Your task to perform on an android device: see creations saved in the google photos Image 0: 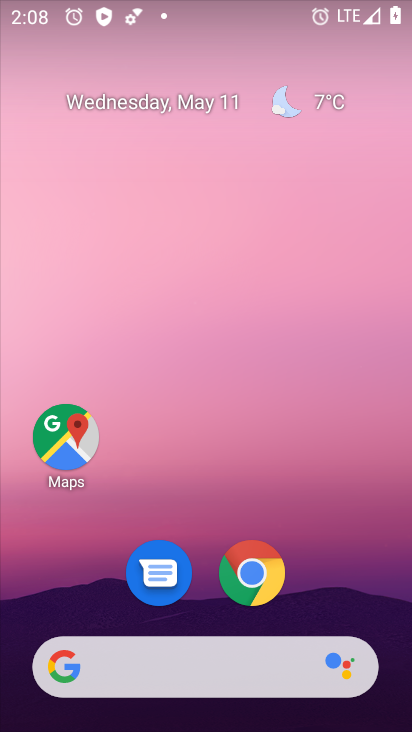
Step 0: drag from (131, 599) to (224, 136)
Your task to perform on an android device: see creations saved in the google photos Image 1: 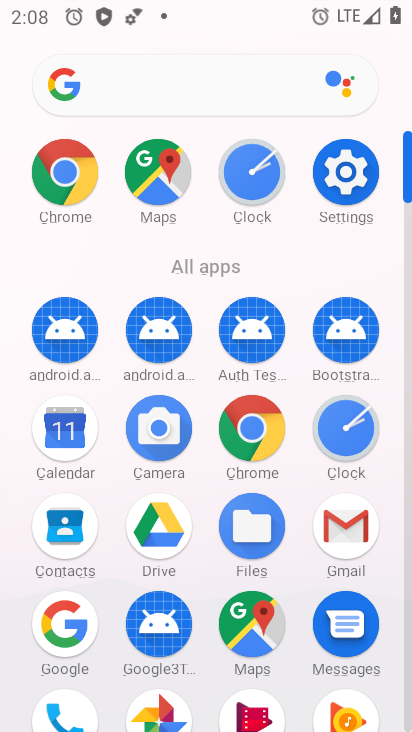
Step 1: click (161, 703)
Your task to perform on an android device: see creations saved in the google photos Image 2: 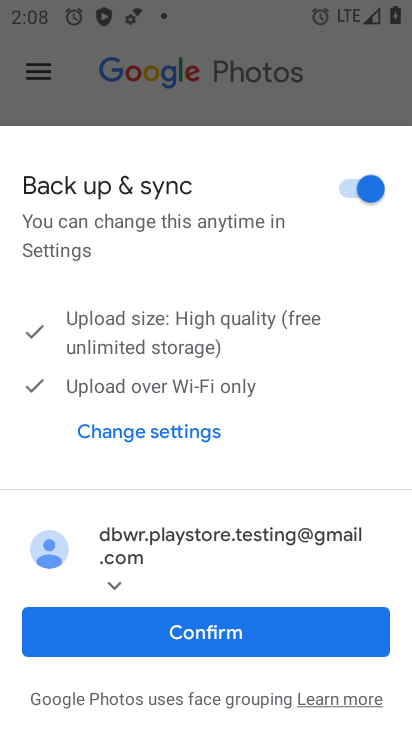
Step 2: click (208, 638)
Your task to perform on an android device: see creations saved in the google photos Image 3: 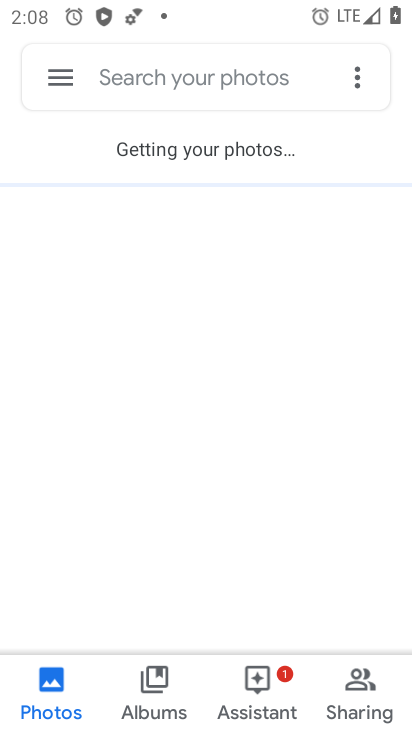
Step 3: click (211, 87)
Your task to perform on an android device: see creations saved in the google photos Image 4: 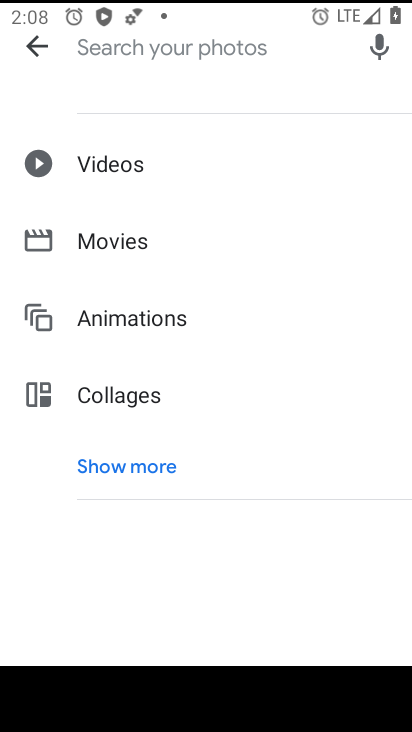
Step 4: click (142, 473)
Your task to perform on an android device: see creations saved in the google photos Image 5: 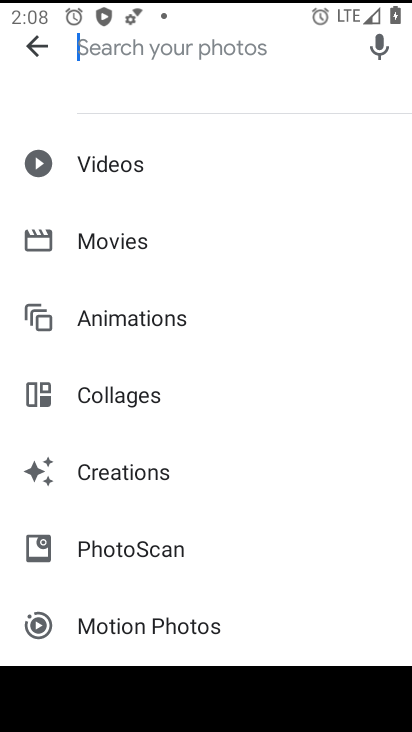
Step 5: click (148, 478)
Your task to perform on an android device: see creations saved in the google photos Image 6: 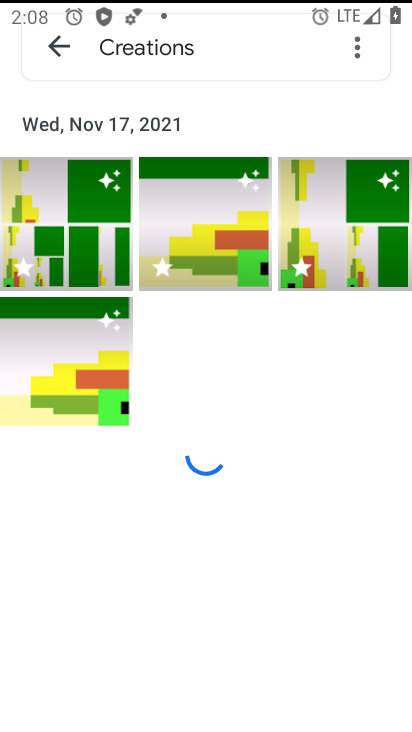
Step 6: task complete